Your task to perform on an android device: set an alarm Image 0: 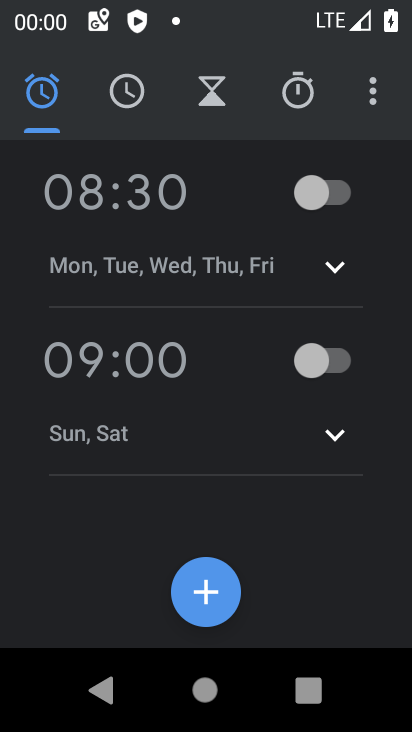
Step 0: click (204, 592)
Your task to perform on an android device: set an alarm Image 1: 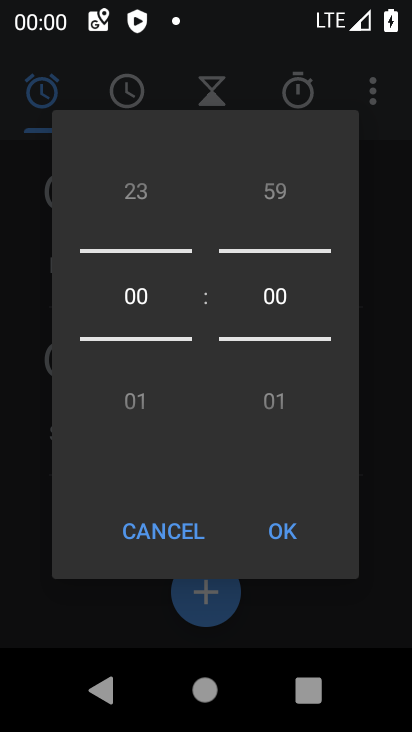
Step 1: click (274, 533)
Your task to perform on an android device: set an alarm Image 2: 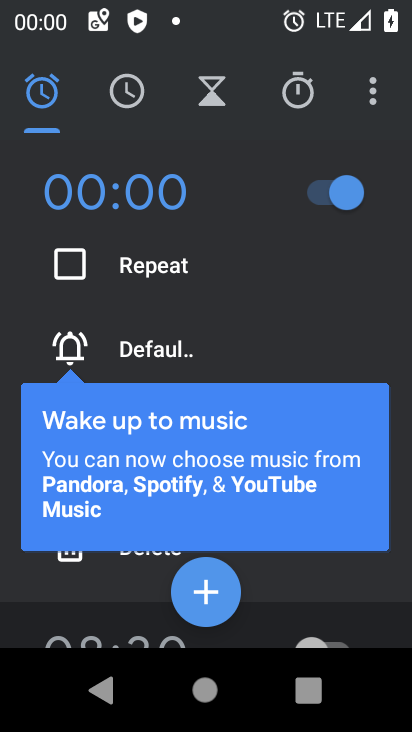
Step 2: task complete